Your task to perform on an android device: Open the Play Movies app and select the watchlist tab. Image 0: 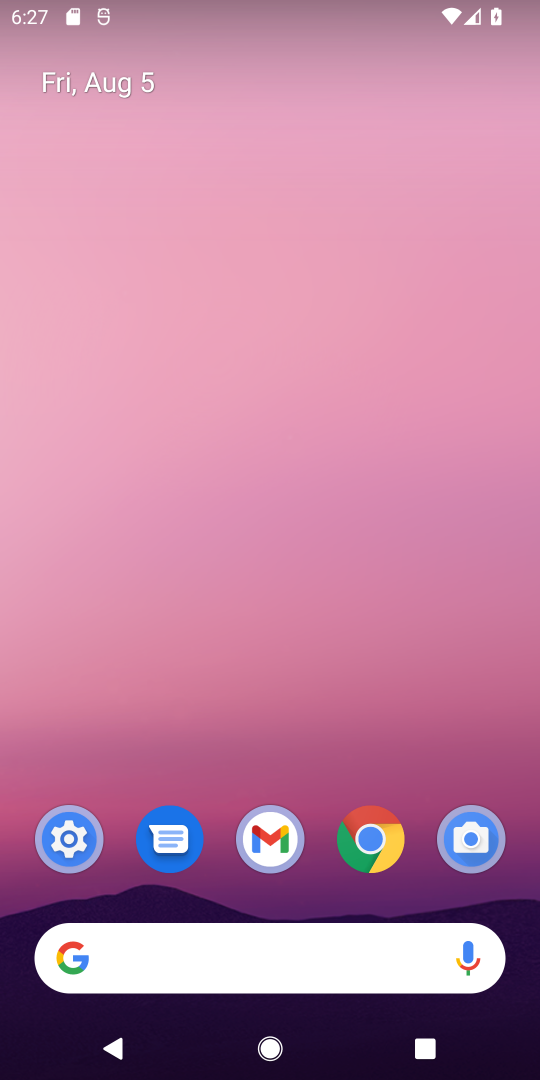
Step 0: drag from (272, 767) to (272, 179)
Your task to perform on an android device: Open the Play Movies app and select the watchlist tab. Image 1: 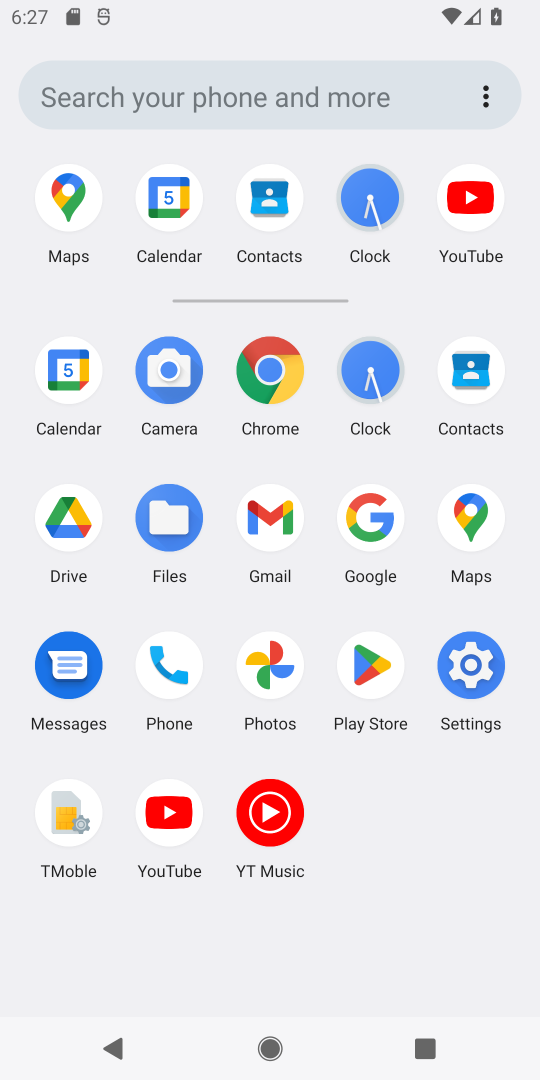
Step 1: task complete